Your task to perform on an android device: create a new album in the google photos Image 0: 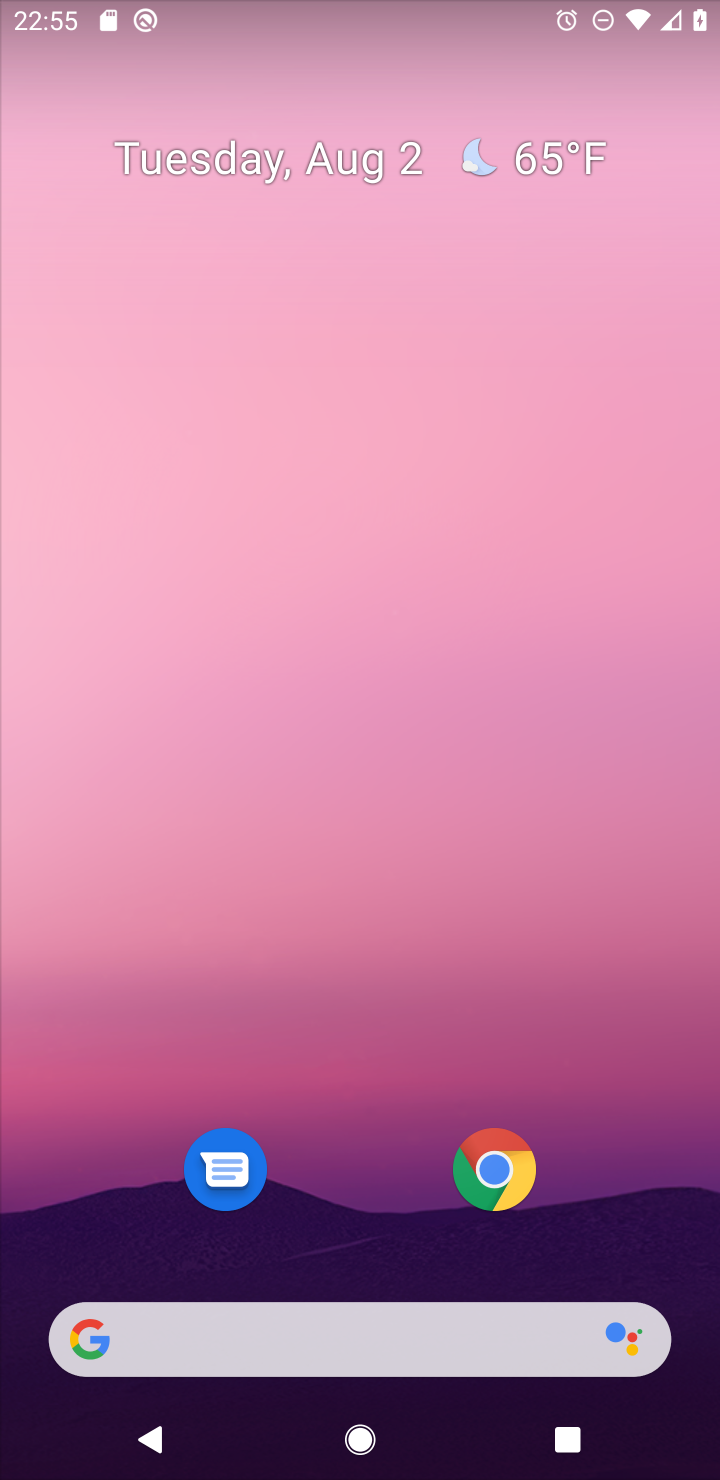
Step 0: drag from (379, 1215) to (375, 346)
Your task to perform on an android device: create a new album in the google photos Image 1: 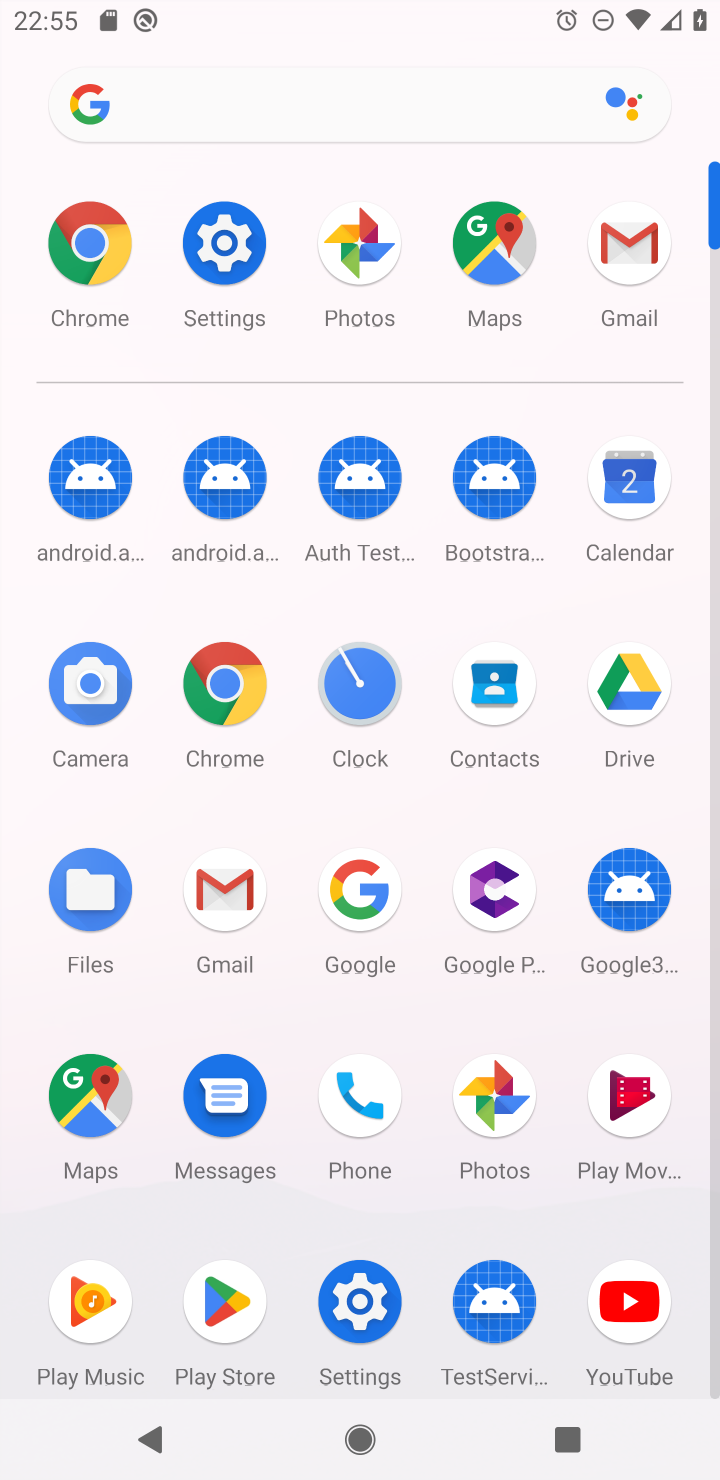
Step 1: click (476, 1084)
Your task to perform on an android device: create a new album in the google photos Image 2: 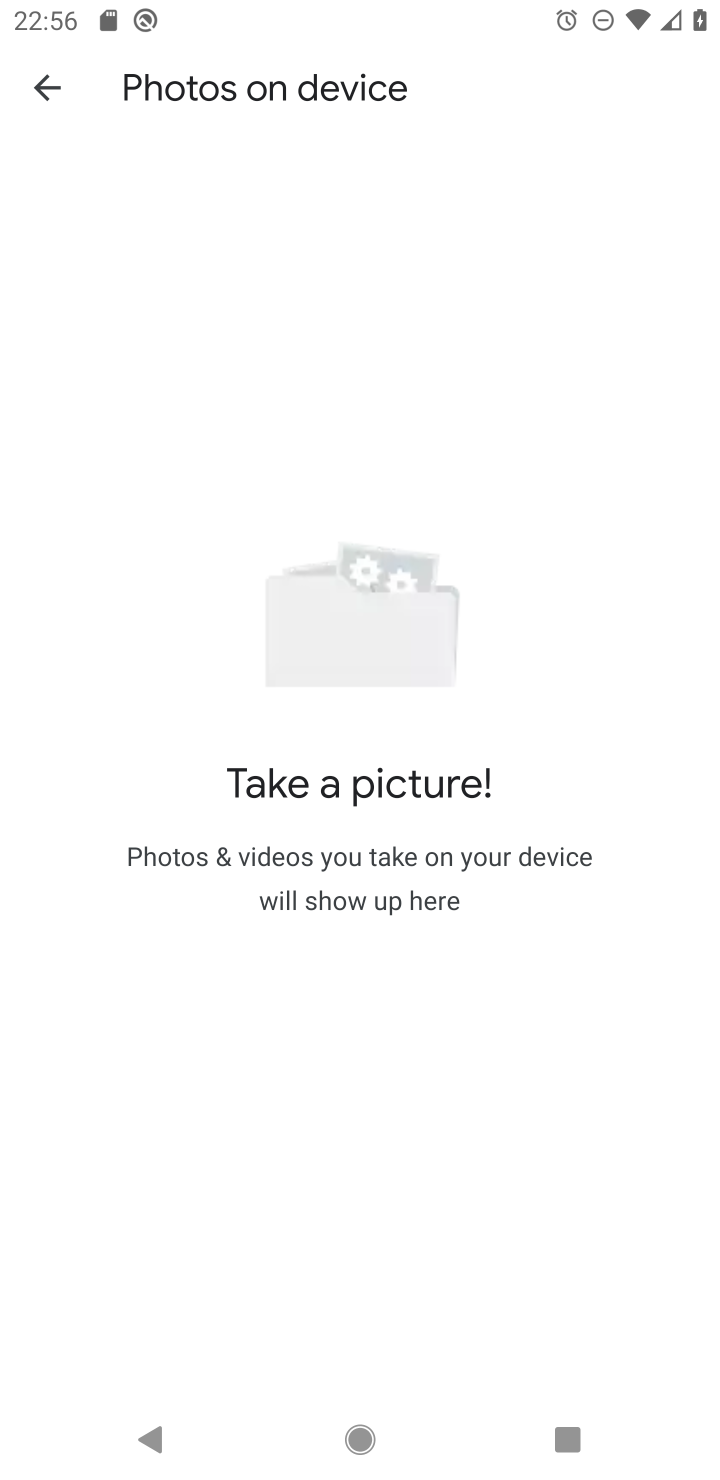
Step 2: click (44, 88)
Your task to perform on an android device: create a new album in the google photos Image 3: 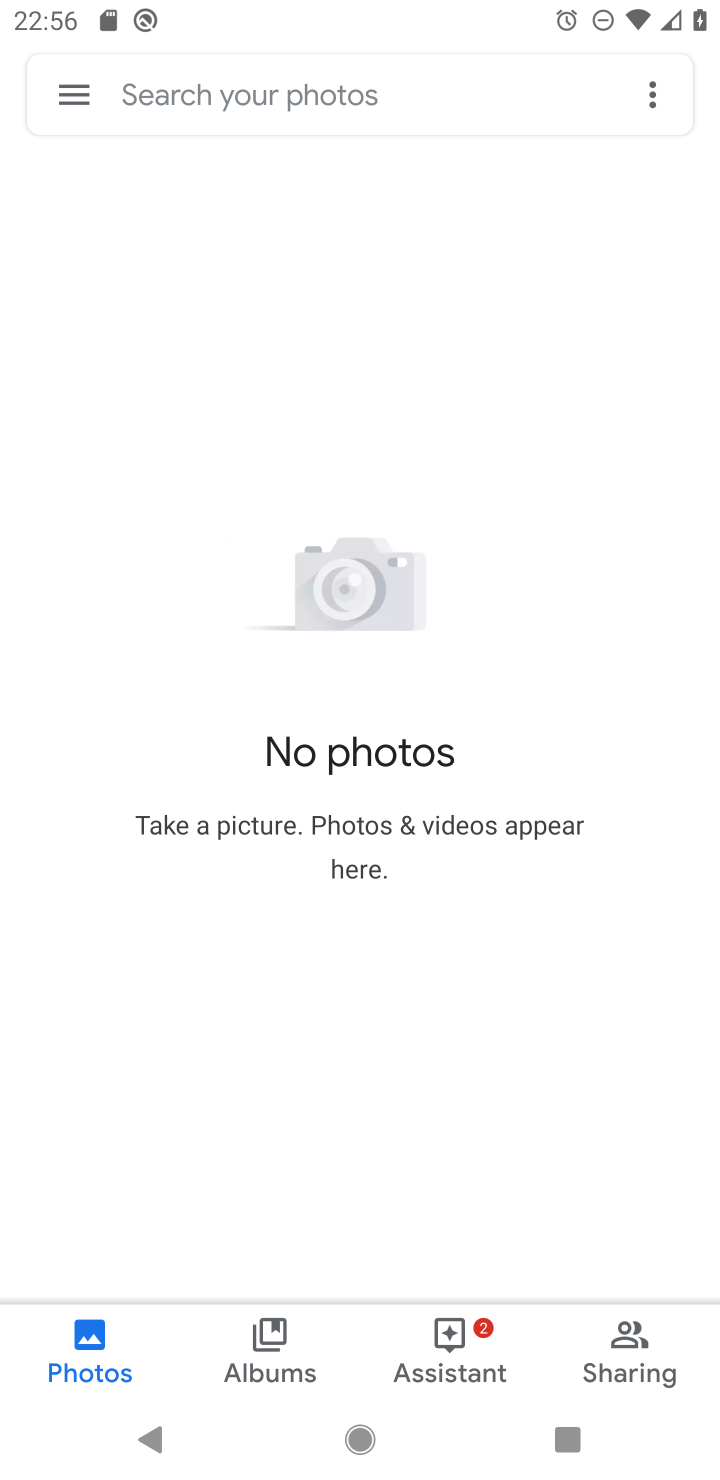
Step 3: click (652, 103)
Your task to perform on an android device: create a new album in the google photos Image 4: 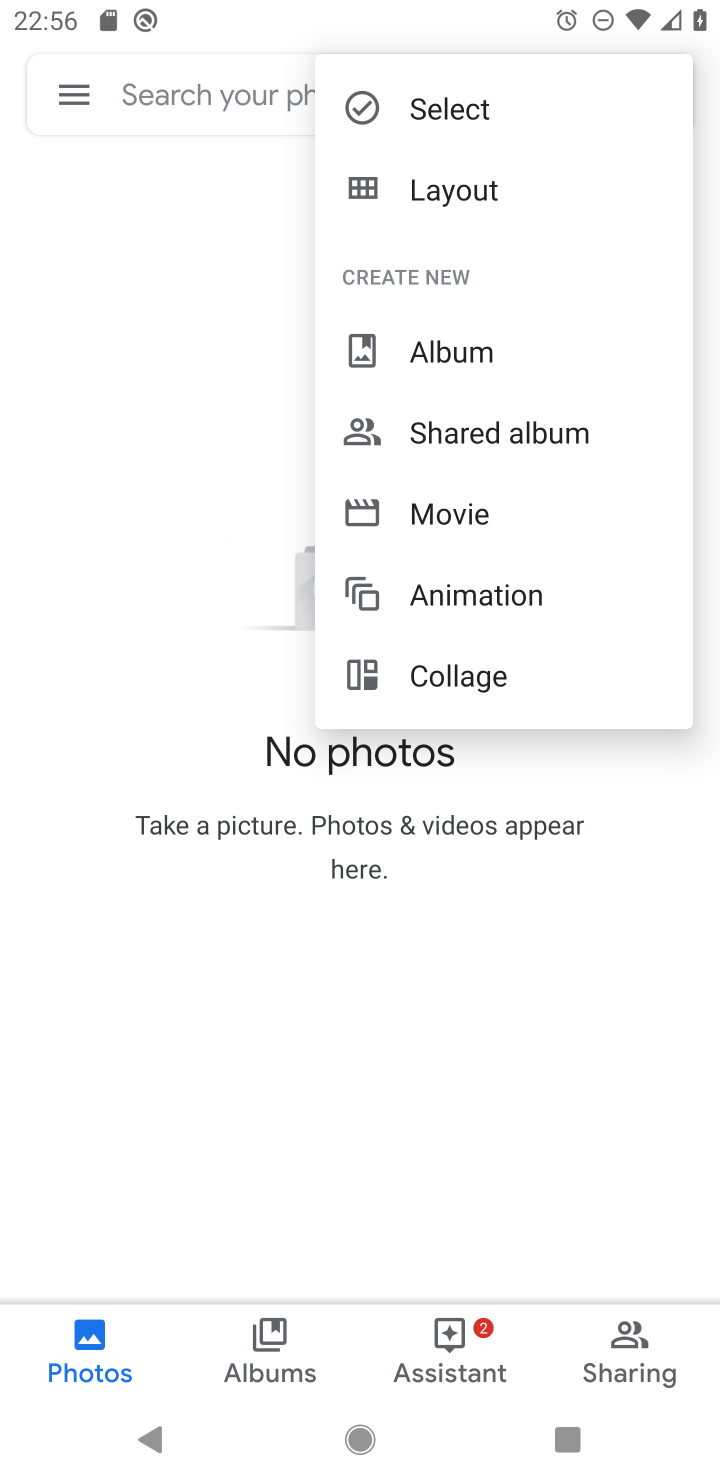
Step 4: click (451, 345)
Your task to perform on an android device: create a new album in the google photos Image 5: 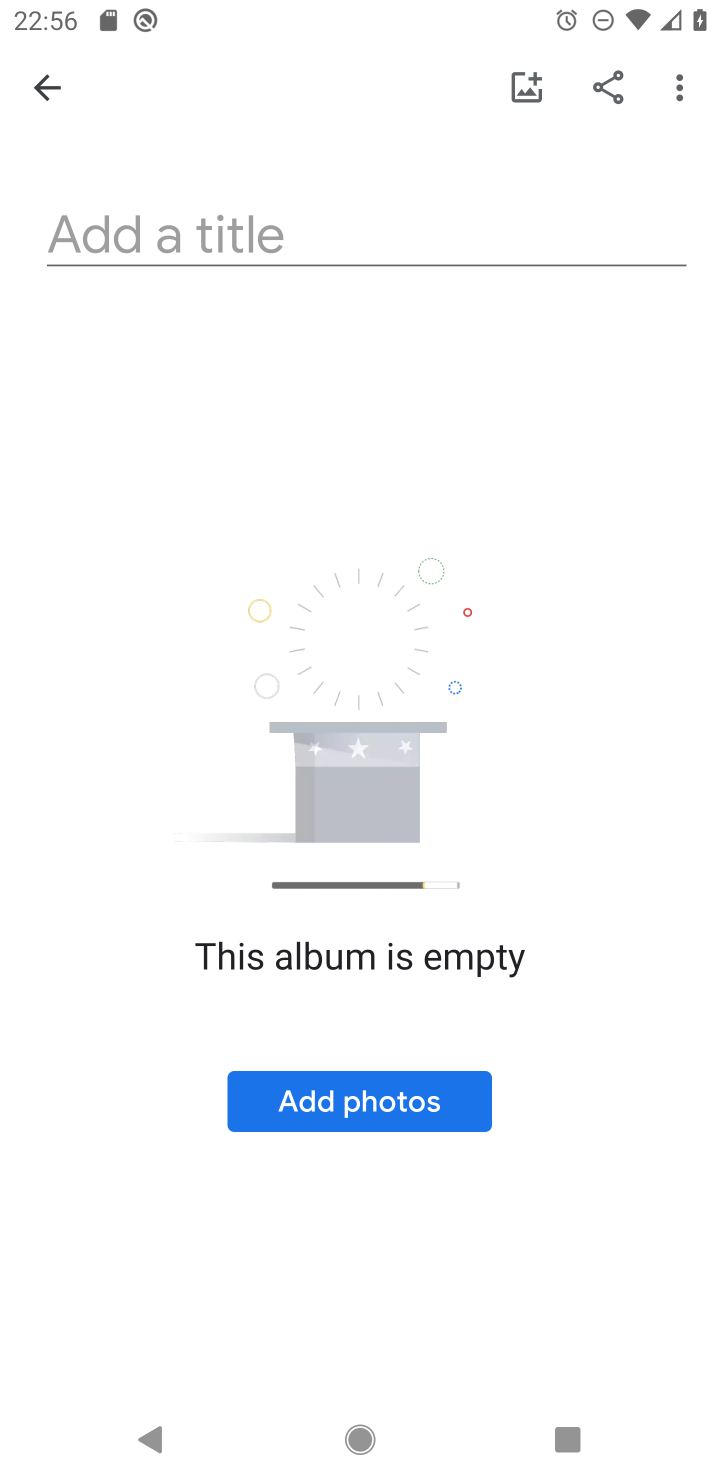
Step 5: click (461, 233)
Your task to perform on an android device: create a new album in the google photos Image 6: 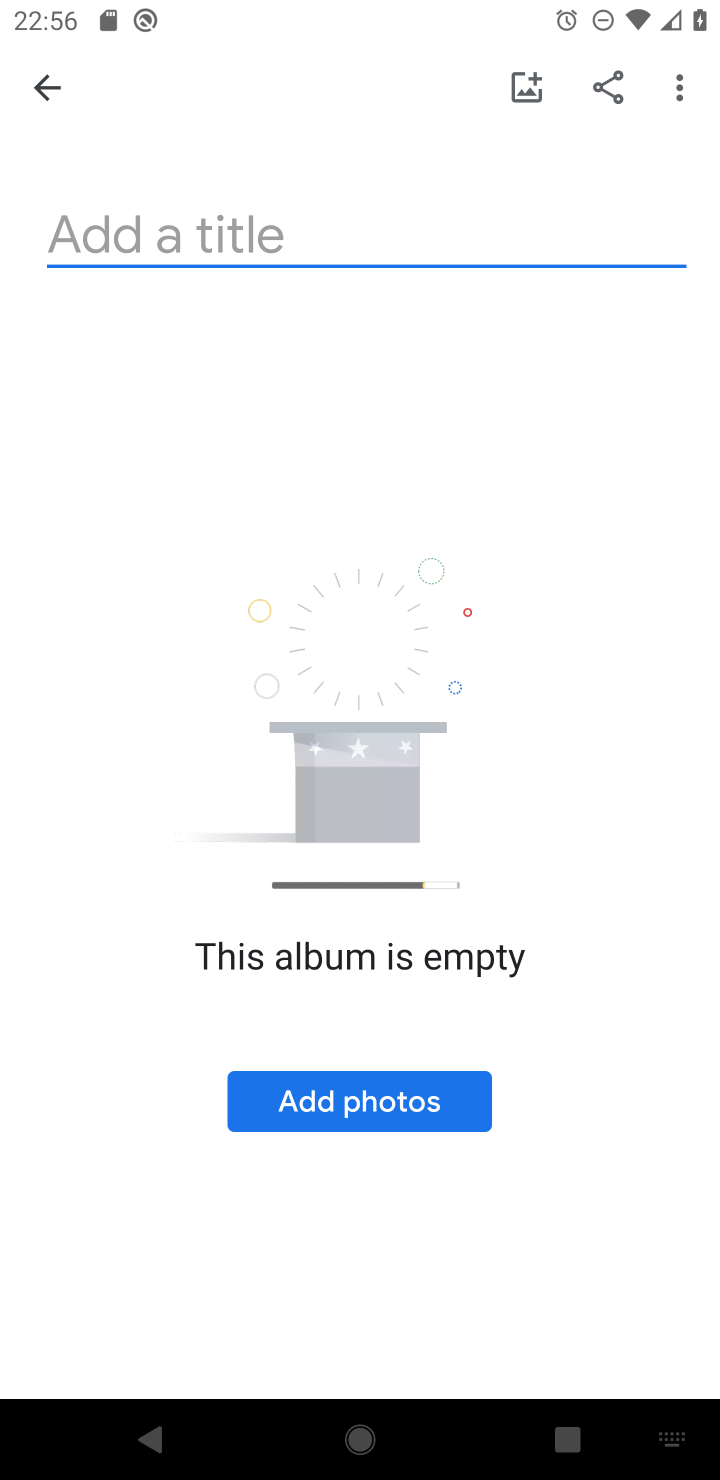
Step 6: type "vbvbcv"
Your task to perform on an android device: create a new album in the google photos Image 7: 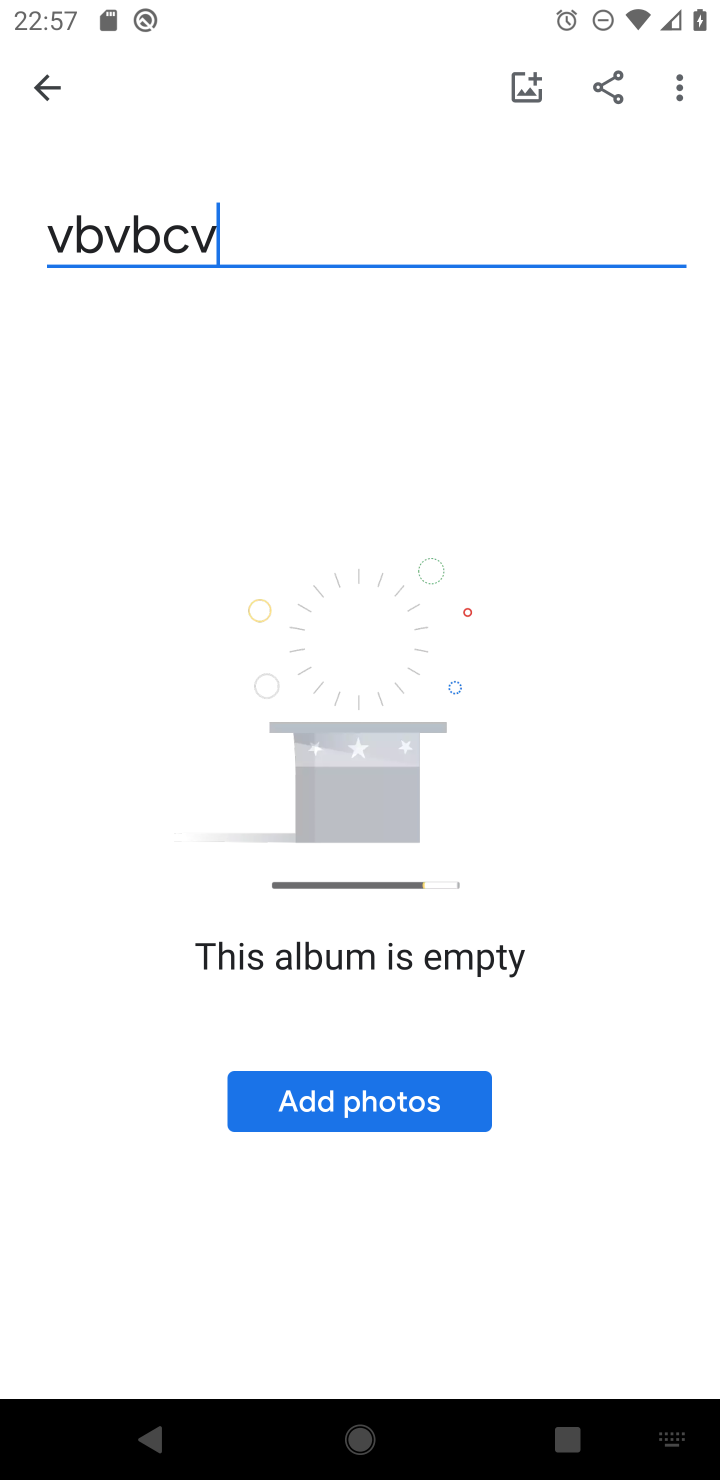
Step 7: click (296, 465)
Your task to perform on an android device: create a new album in the google photos Image 8: 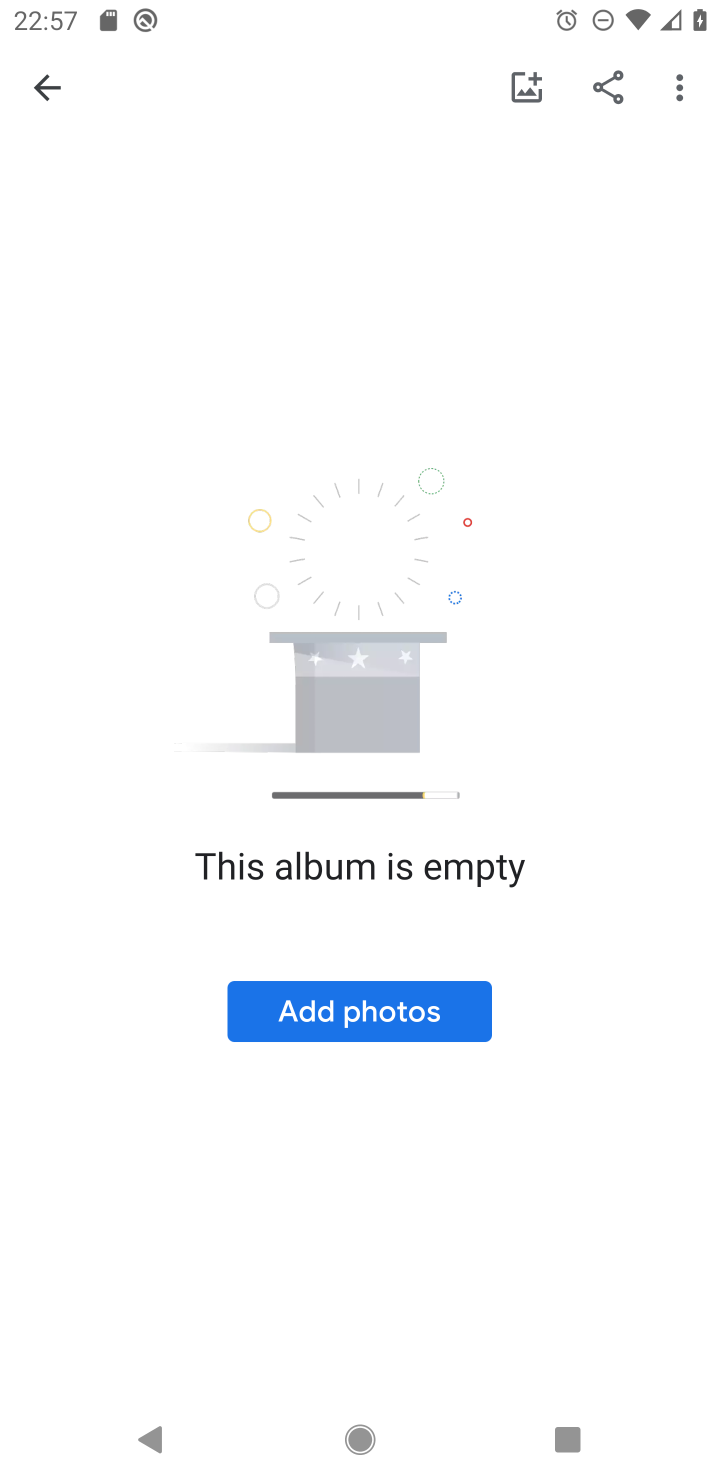
Step 8: task complete